Your task to perform on an android device: turn on showing notifications on the lock screen Image 0: 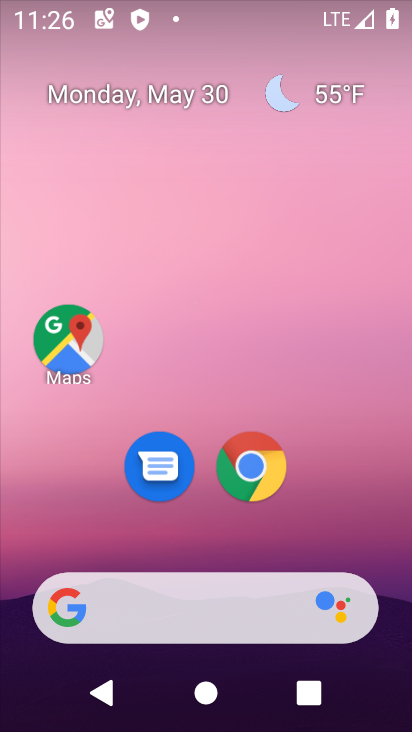
Step 0: drag from (367, 555) to (341, 109)
Your task to perform on an android device: turn on showing notifications on the lock screen Image 1: 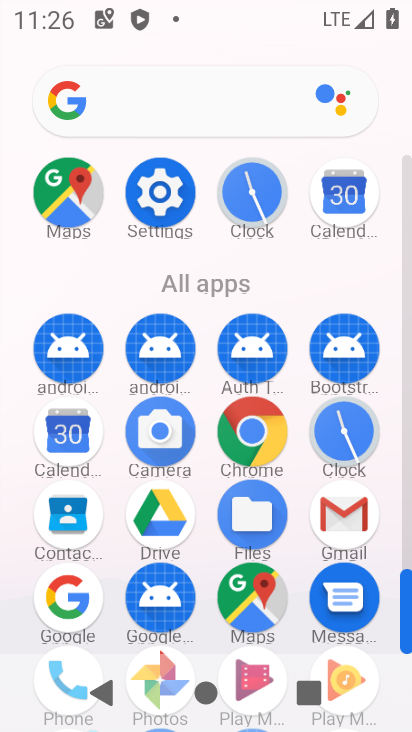
Step 1: click (154, 194)
Your task to perform on an android device: turn on showing notifications on the lock screen Image 2: 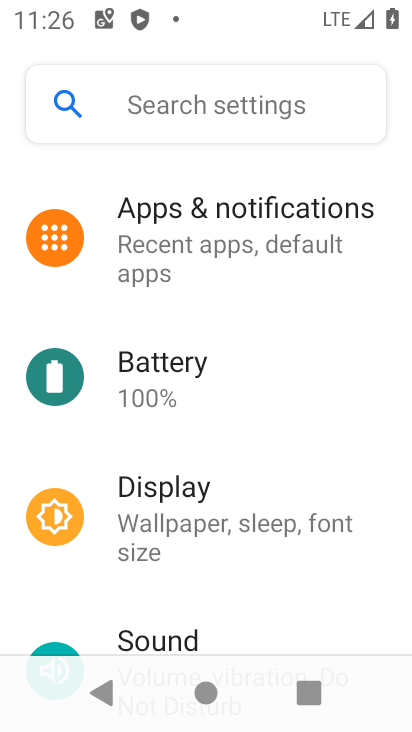
Step 2: drag from (240, 588) to (222, 521)
Your task to perform on an android device: turn on showing notifications on the lock screen Image 3: 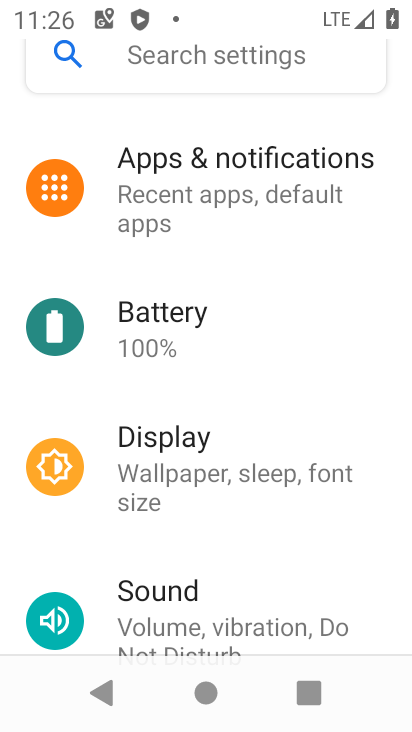
Step 3: click (195, 189)
Your task to perform on an android device: turn on showing notifications on the lock screen Image 4: 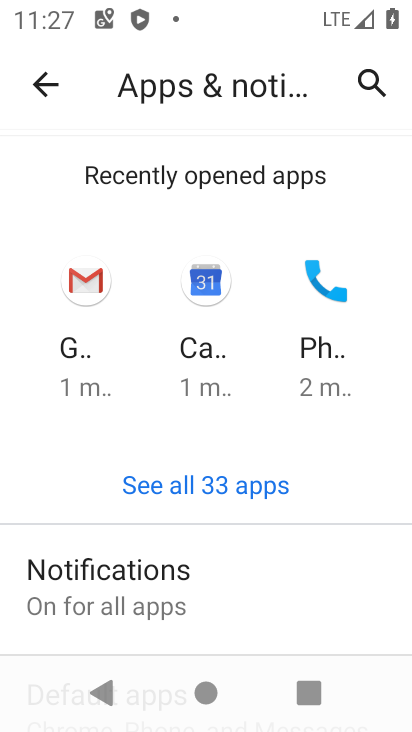
Step 4: drag from (208, 514) to (190, 320)
Your task to perform on an android device: turn on showing notifications on the lock screen Image 5: 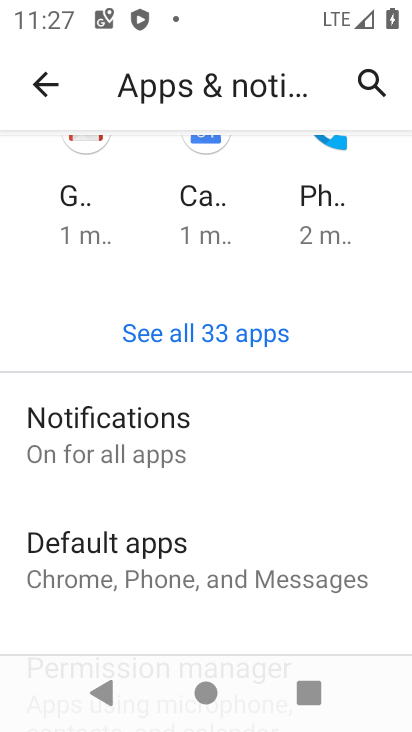
Step 5: drag from (243, 611) to (227, 348)
Your task to perform on an android device: turn on showing notifications on the lock screen Image 6: 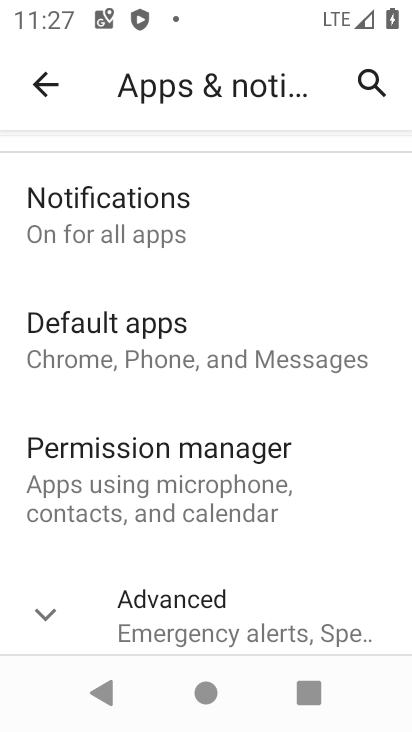
Step 6: drag from (240, 644) to (215, 322)
Your task to perform on an android device: turn on showing notifications on the lock screen Image 7: 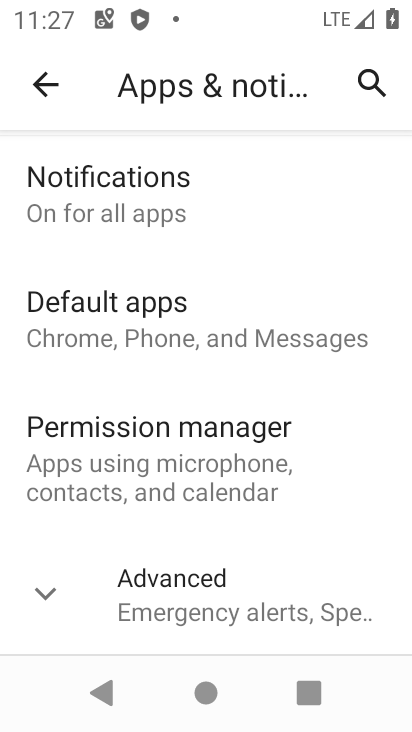
Step 7: drag from (211, 563) to (213, 284)
Your task to perform on an android device: turn on showing notifications on the lock screen Image 8: 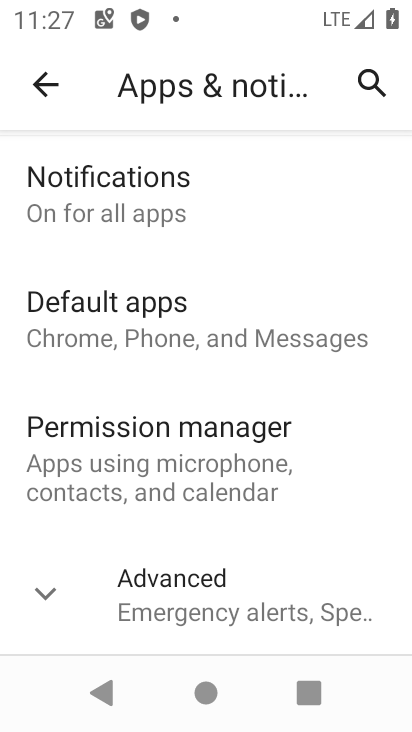
Step 8: click (203, 203)
Your task to perform on an android device: turn on showing notifications on the lock screen Image 9: 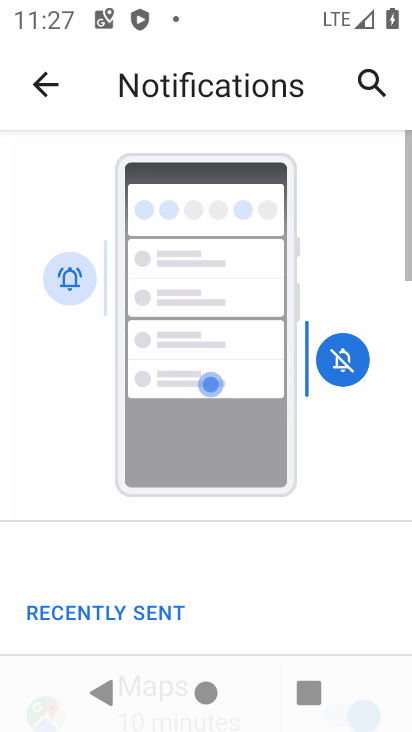
Step 9: drag from (230, 632) to (261, 31)
Your task to perform on an android device: turn on showing notifications on the lock screen Image 10: 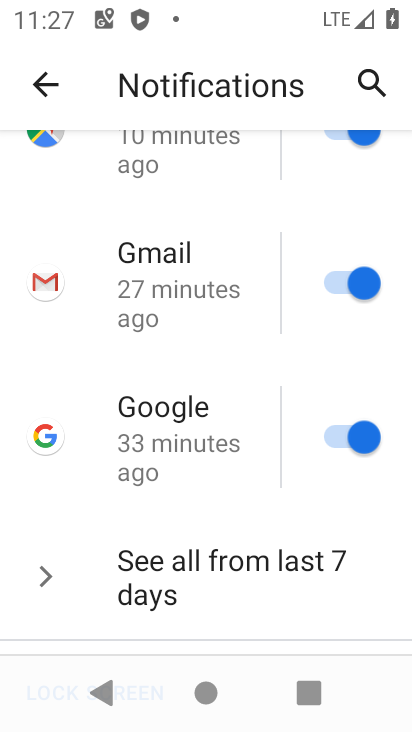
Step 10: drag from (230, 565) to (233, 169)
Your task to perform on an android device: turn on showing notifications on the lock screen Image 11: 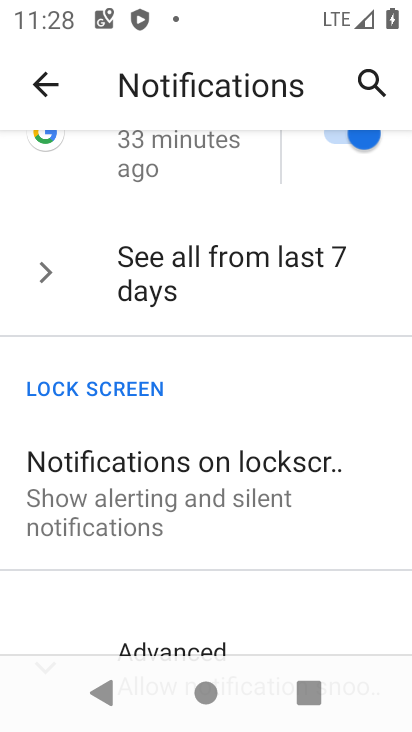
Step 11: drag from (199, 551) to (197, 342)
Your task to perform on an android device: turn on showing notifications on the lock screen Image 12: 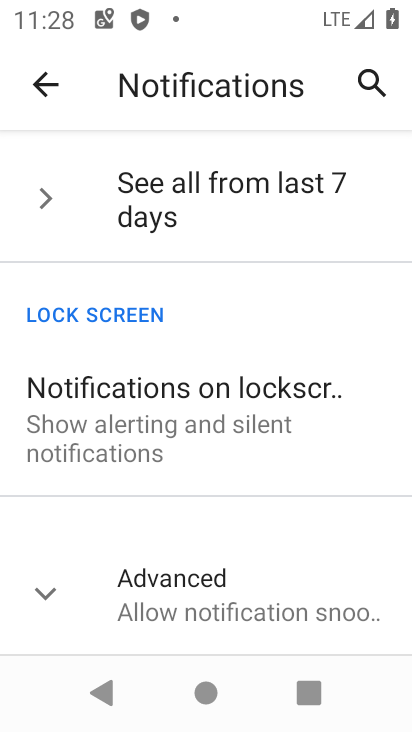
Step 12: click (183, 434)
Your task to perform on an android device: turn on showing notifications on the lock screen Image 13: 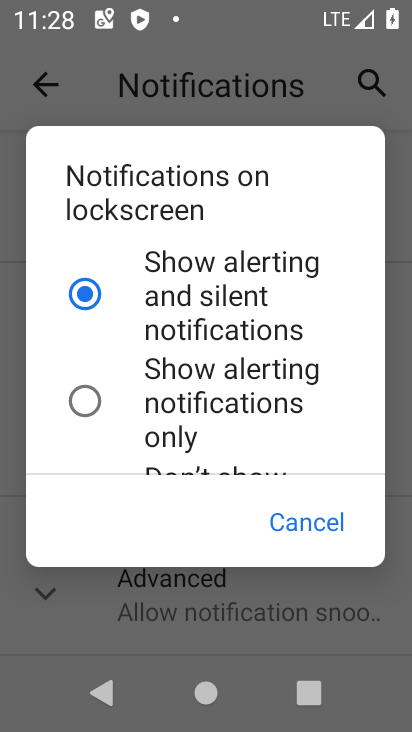
Step 13: task complete